Your task to perform on an android device: Open internet settings Image 0: 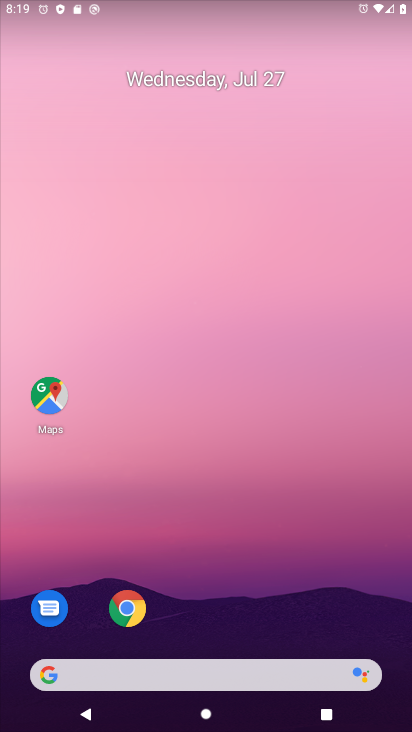
Step 0: drag from (244, 575) to (231, 270)
Your task to perform on an android device: Open internet settings Image 1: 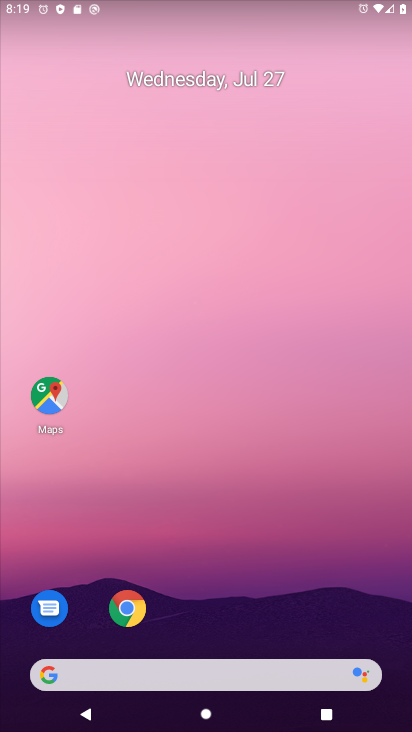
Step 1: drag from (289, 451) to (288, 31)
Your task to perform on an android device: Open internet settings Image 2: 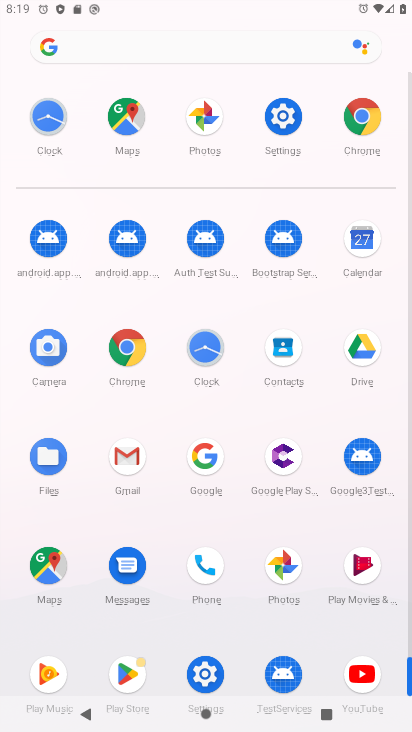
Step 2: click (293, 105)
Your task to perform on an android device: Open internet settings Image 3: 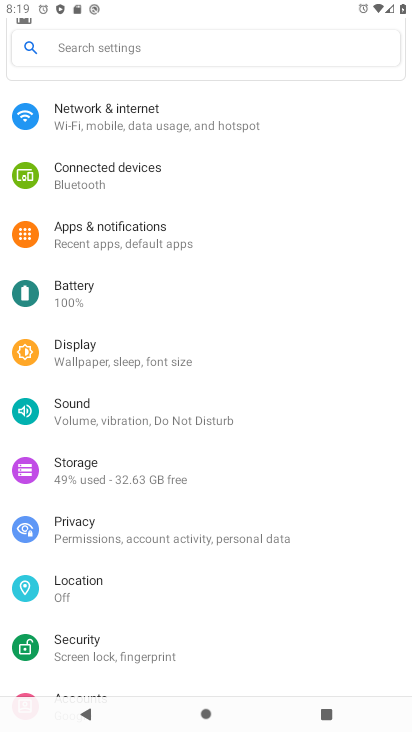
Step 3: click (202, 116)
Your task to perform on an android device: Open internet settings Image 4: 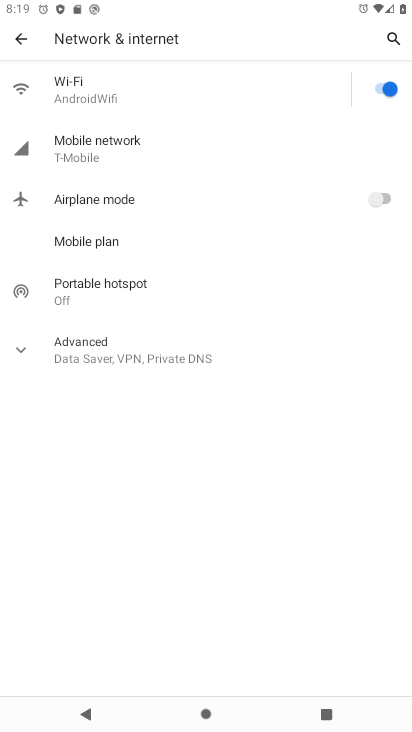
Step 4: task complete